Your task to perform on an android device: toggle improve location accuracy Image 0: 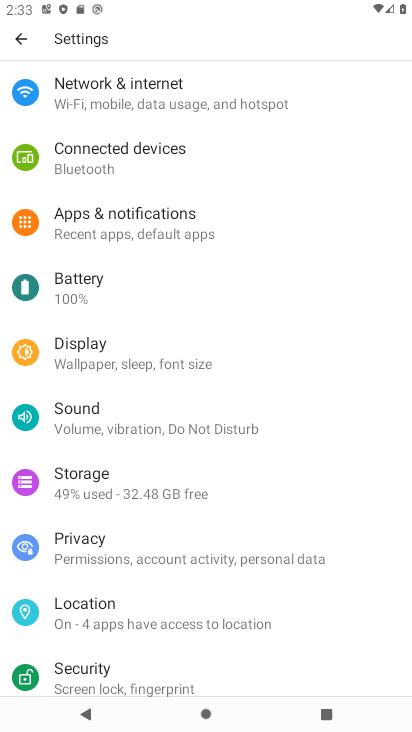
Step 0: click (123, 617)
Your task to perform on an android device: toggle improve location accuracy Image 1: 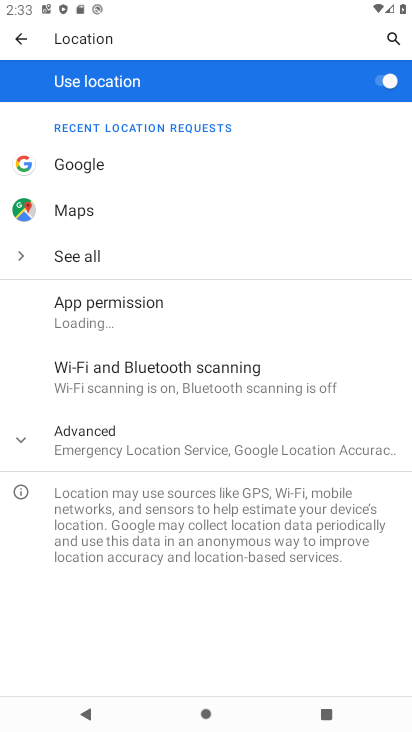
Step 1: click (19, 443)
Your task to perform on an android device: toggle improve location accuracy Image 2: 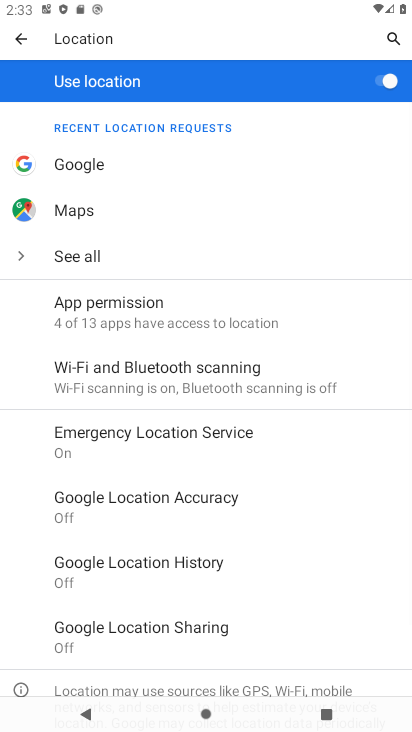
Step 2: click (159, 502)
Your task to perform on an android device: toggle improve location accuracy Image 3: 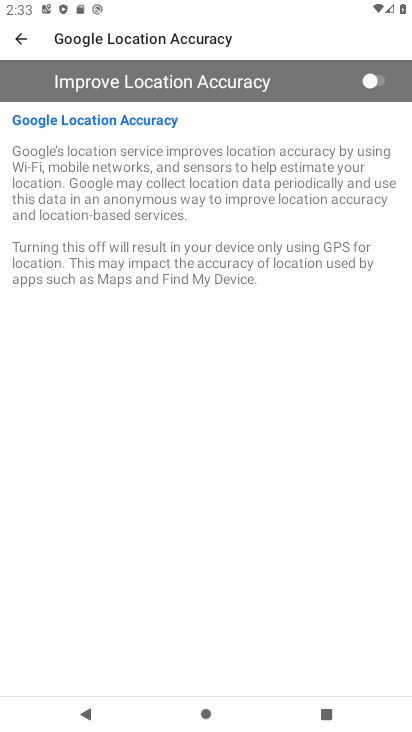
Step 3: click (376, 78)
Your task to perform on an android device: toggle improve location accuracy Image 4: 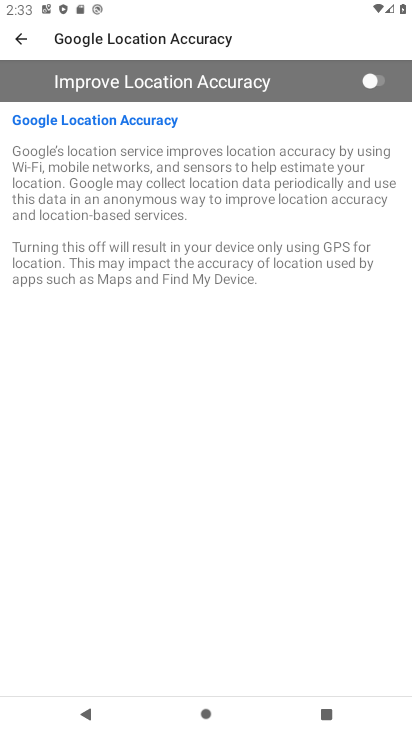
Step 4: click (376, 78)
Your task to perform on an android device: toggle improve location accuracy Image 5: 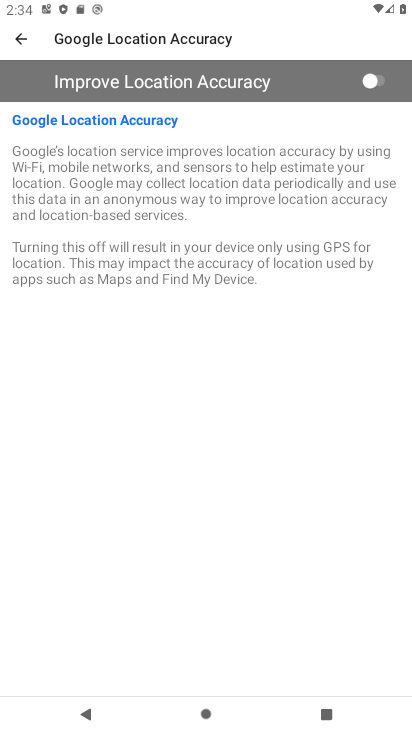
Step 5: click (377, 77)
Your task to perform on an android device: toggle improve location accuracy Image 6: 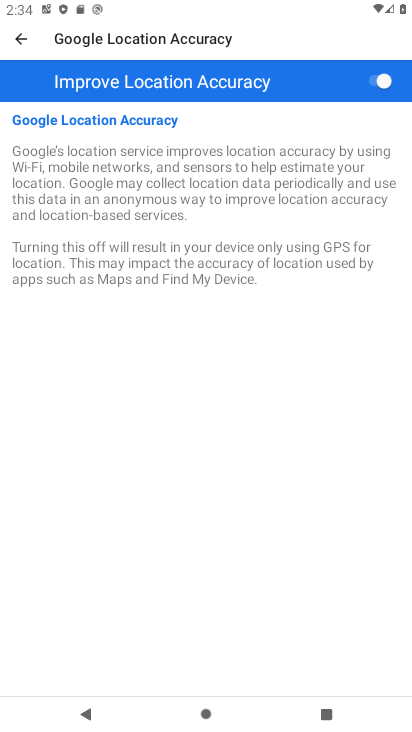
Step 6: task complete